Your task to perform on an android device: check data usage Image 0: 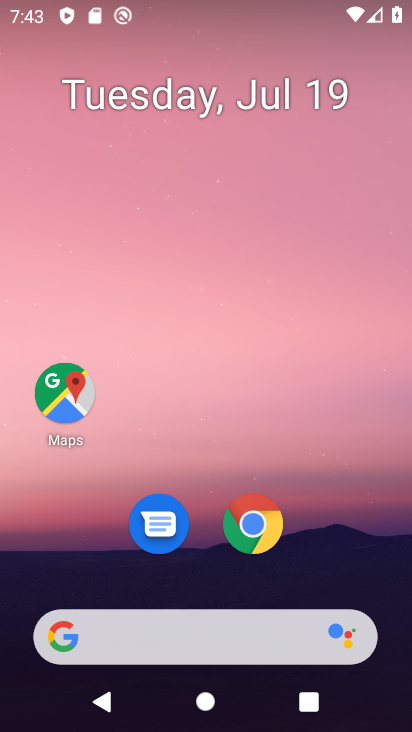
Step 0: drag from (207, 460) to (242, 0)
Your task to perform on an android device: check data usage Image 1: 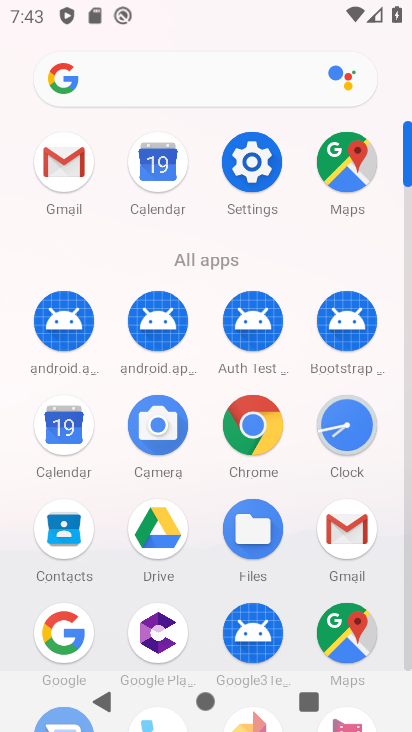
Step 1: click (247, 157)
Your task to perform on an android device: check data usage Image 2: 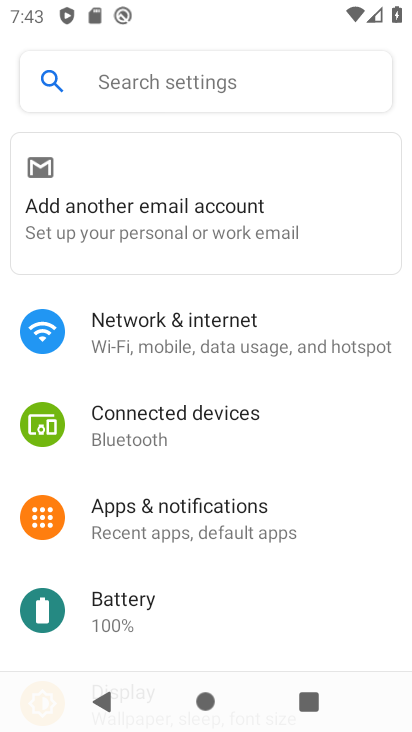
Step 2: click (217, 326)
Your task to perform on an android device: check data usage Image 3: 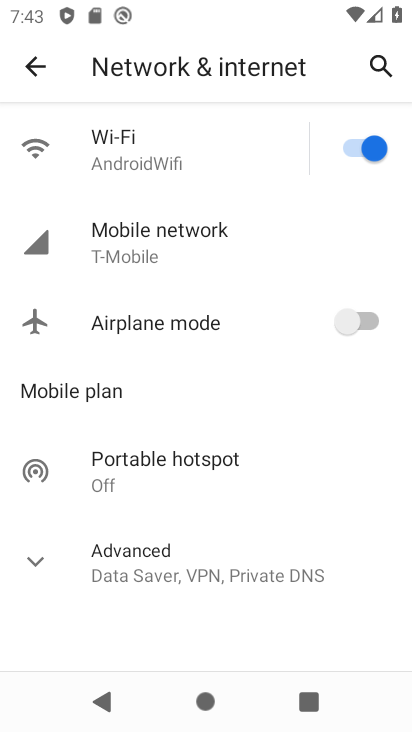
Step 3: click (226, 237)
Your task to perform on an android device: check data usage Image 4: 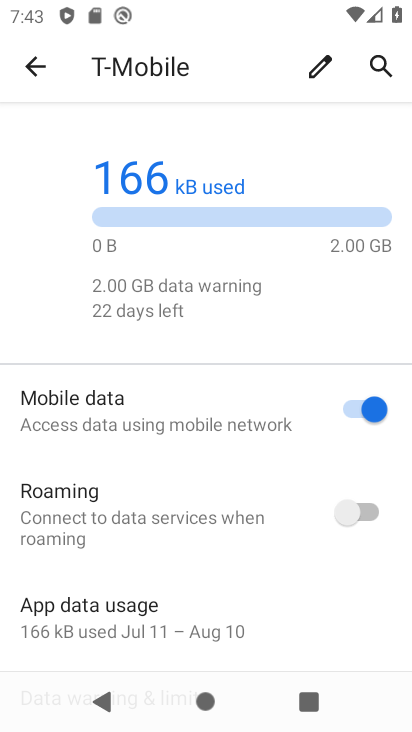
Step 4: task complete